Your task to perform on an android device: turn pop-ups off in chrome Image 0: 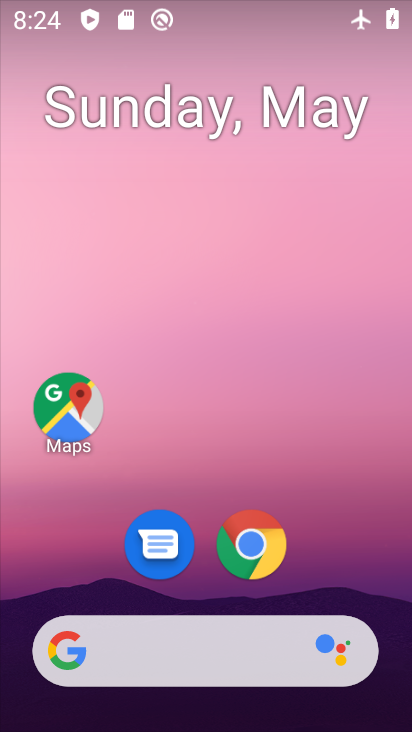
Step 0: drag from (309, 440) to (289, 57)
Your task to perform on an android device: turn pop-ups off in chrome Image 1: 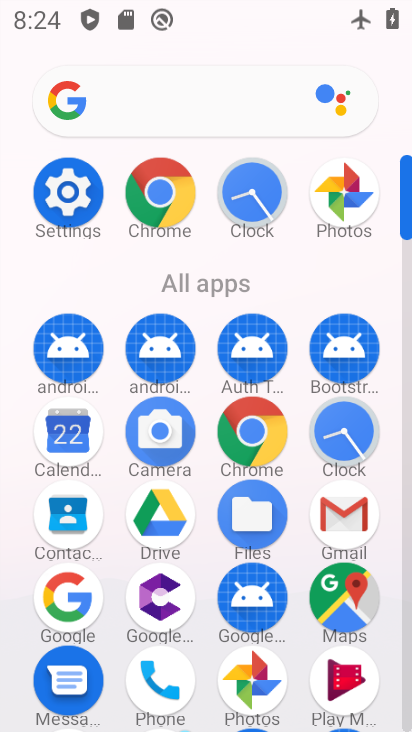
Step 1: drag from (7, 552) to (18, 189)
Your task to perform on an android device: turn pop-ups off in chrome Image 2: 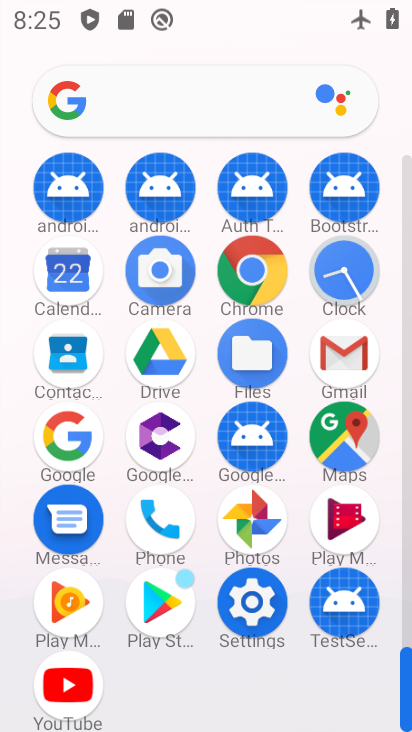
Step 2: click (252, 273)
Your task to perform on an android device: turn pop-ups off in chrome Image 3: 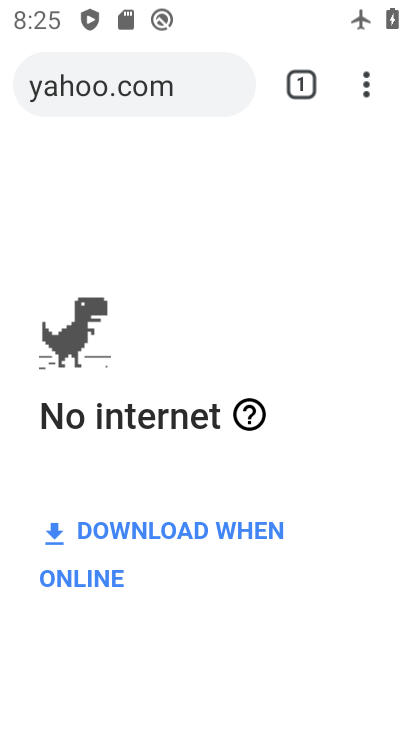
Step 3: drag from (357, 86) to (182, 586)
Your task to perform on an android device: turn pop-ups off in chrome Image 4: 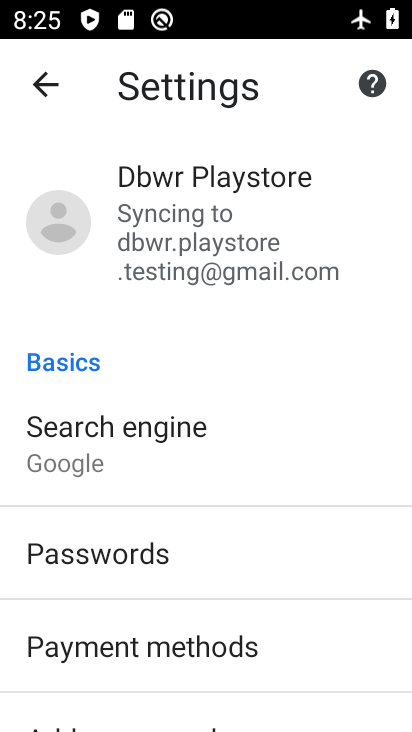
Step 4: drag from (237, 570) to (274, 125)
Your task to perform on an android device: turn pop-ups off in chrome Image 5: 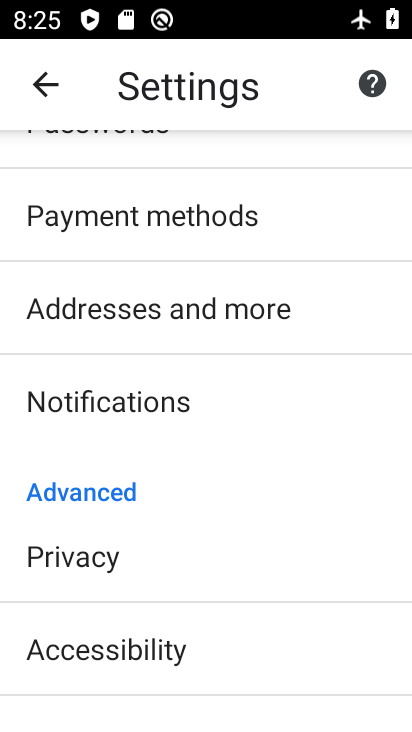
Step 5: drag from (187, 614) to (241, 226)
Your task to perform on an android device: turn pop-ups off in chrome Image 6: 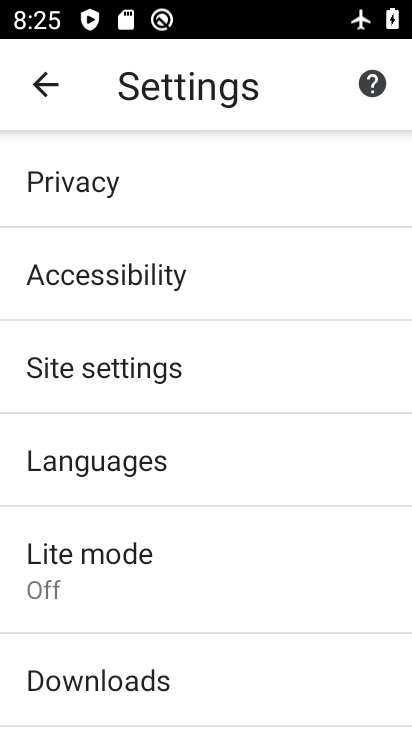
Step 6: drag from (251, 531) to (263, 276)
Your task to perform on an android device: turn pop-ups off in chrome Image 7: 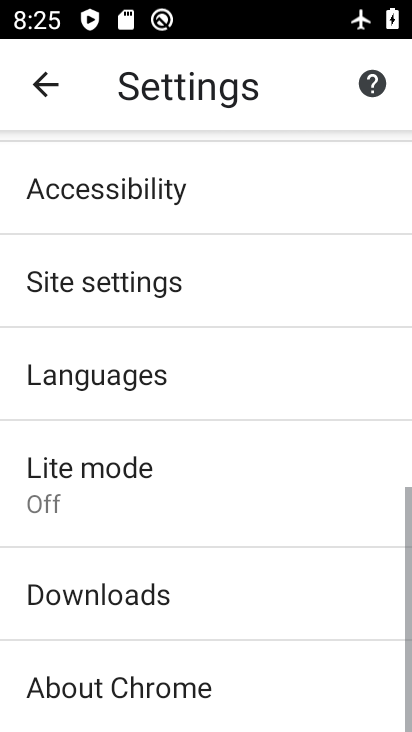
Step 7: drag from (232, 586) to (237, 205)
Your task to perform on an android device: turn pop-ups off in chrome Image 8: 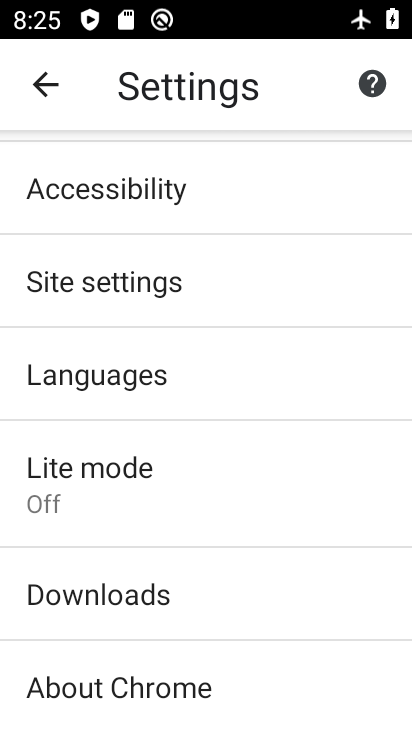
Step 8: drag from (232, 652) to (244, 268)
Your task to perform on an android device: turn pop-ups off in chrome Image 9: 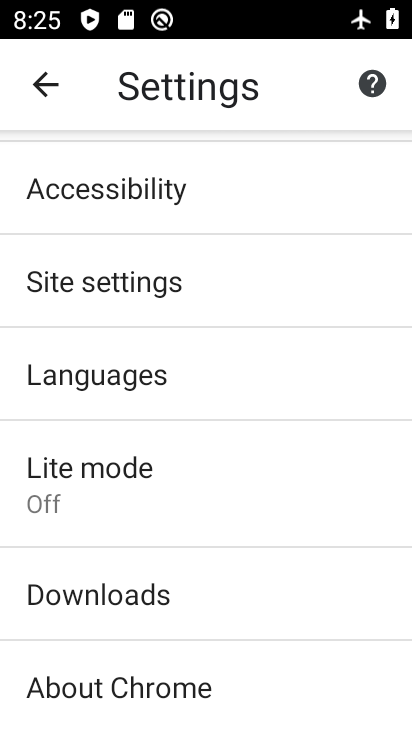
Step 9: drag from (256, 241) to (246, 646)
Your task to perform on an android device: turn pop-ups off in chrome Image 10: 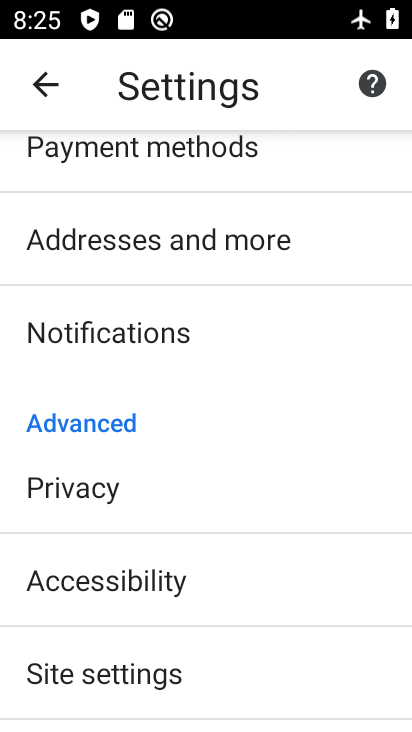
Step 10: click (165, 663)
Your task to perform on an android device: turn pop-ups off in chrome Image 11: 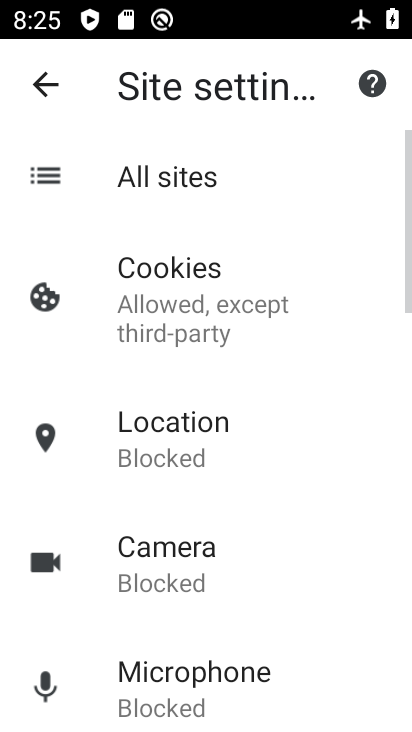
Step 11: drag from (262, 636) to (308, 231)
Your task to perform on an android device: turn pop-ups off in chrome Image 12: 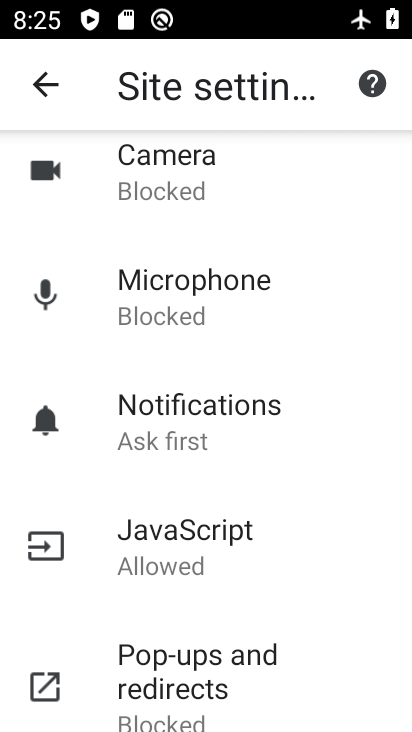
Step 12: drag from (248, 634) to (248, 179)
Your task to perform on an android device: turn pop-ups off in chrome Image 13: 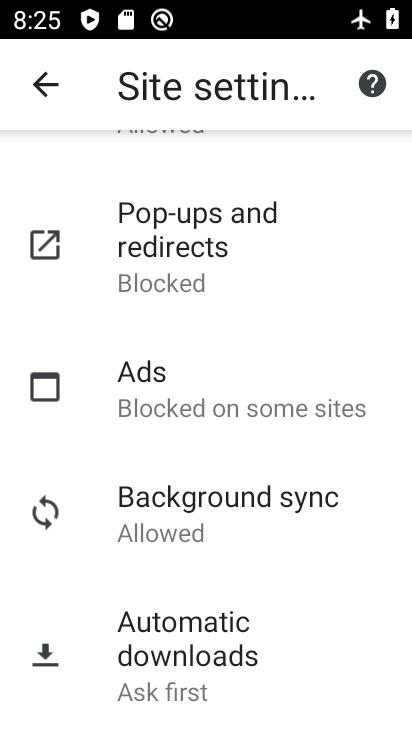
Step 13: click (203, 243)
Your task to perform on an android device: turn pop-ups off in chrome Image 14: 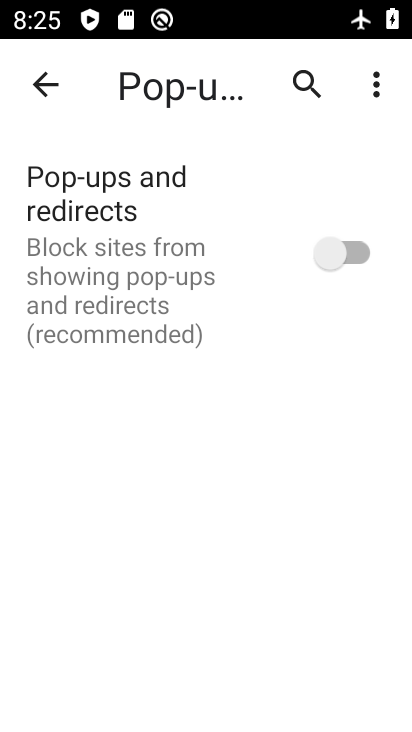
Step 14: task complete